Your task to perform on an android device: uninstall "NewsBreak: Local News & Alerts" Image 0: 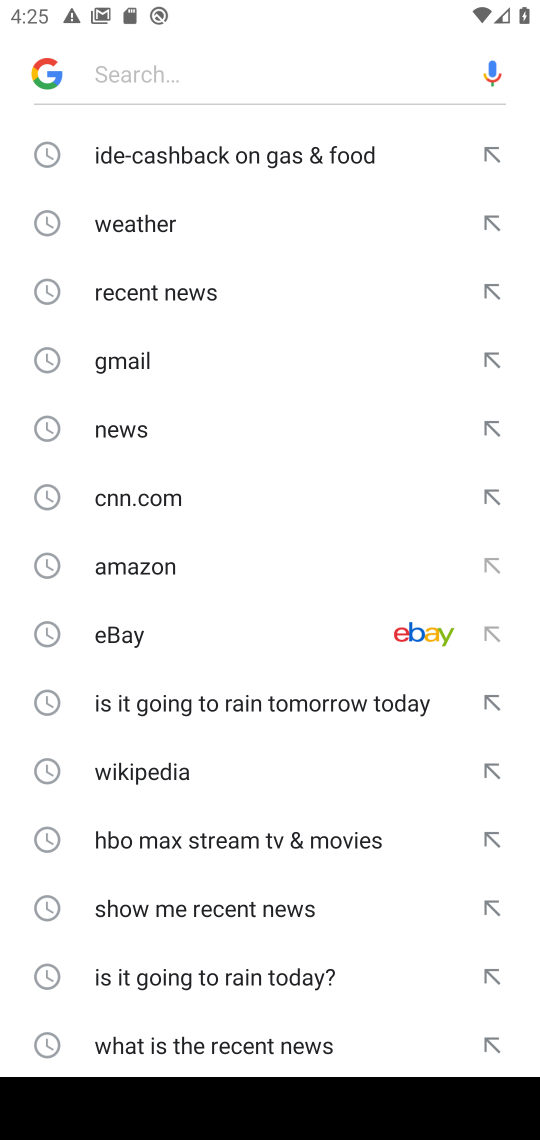
Step 0: press home button
Your task to perform on an android device: uninstall "NewsBreak: Local News & Alerts" Image 1: 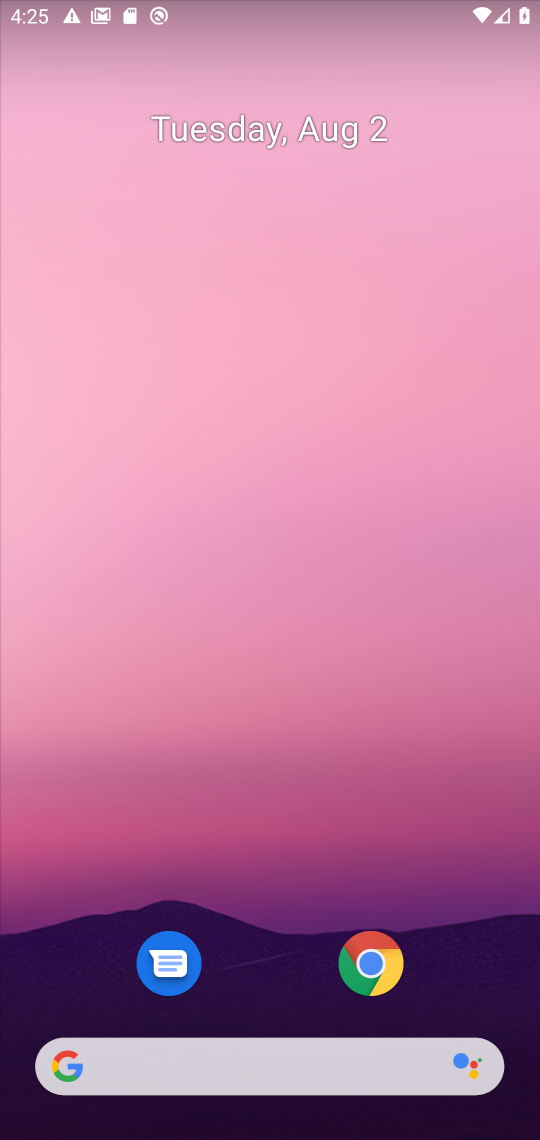
Step 1: drag from (284, 984) to (299, 252)
Your task to perform on an android device: uninstall "NewsBreak: Local News & Alerts" Image 2: 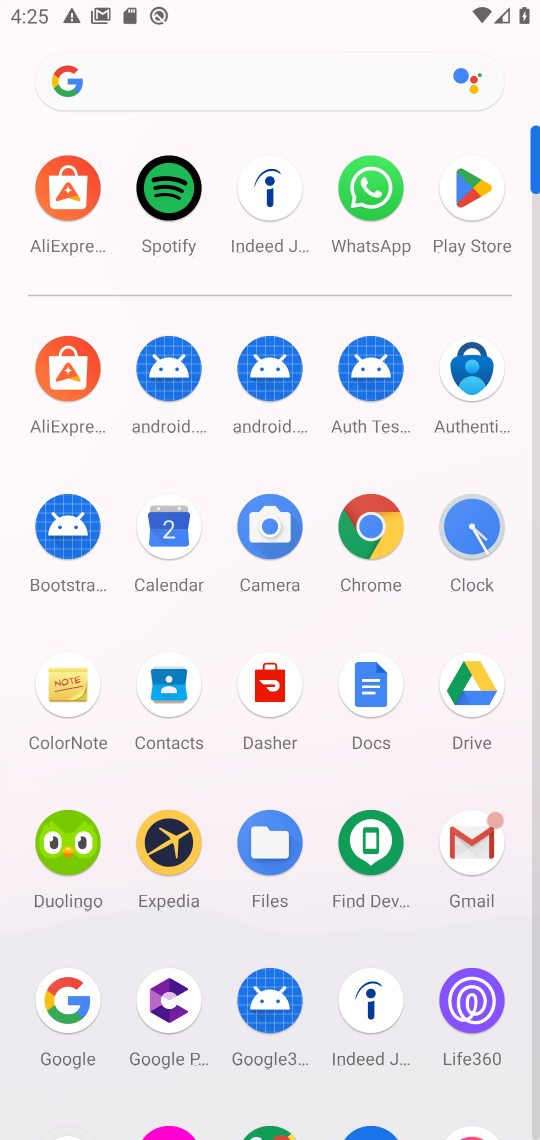
Step 2: click (466, 193)
Your task to perform on an android device: uninstall "NewsBreak: Local News & Alerts" Image 3: 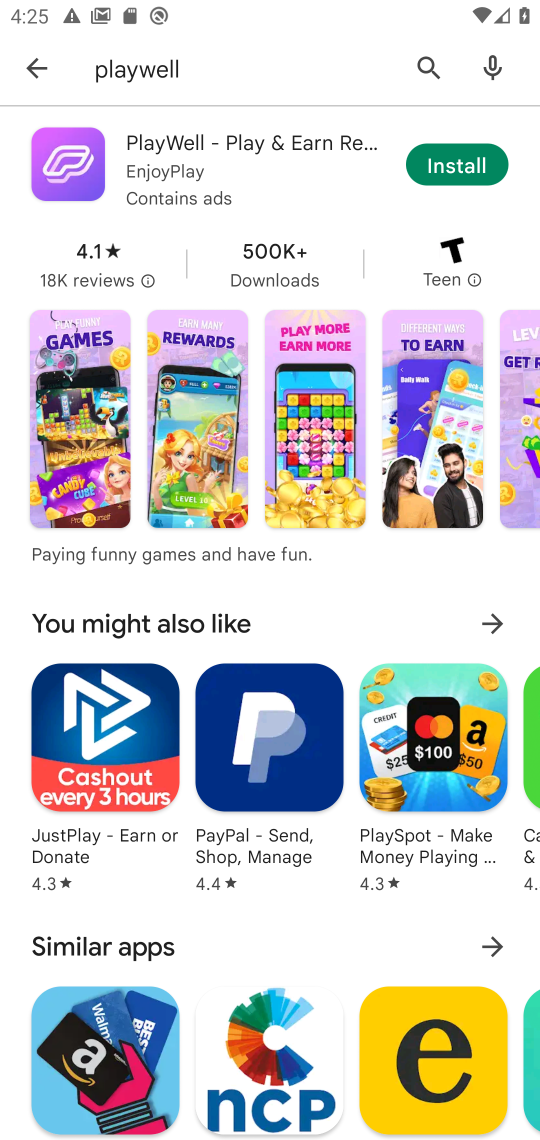
Step 3: click (430, 70)
Your task to perform on an android device: uninstall "NewsBreak: Local News & Alerts" Image 4: 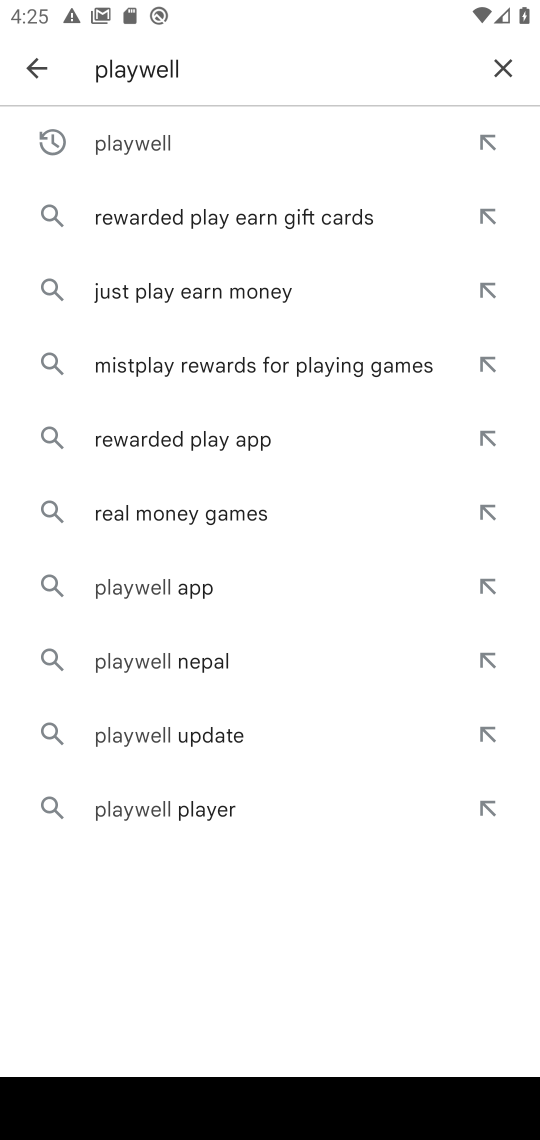
Step 4: click (512, 75)
Your task to perform on an android device: uninstall "NewsBreak: Local News & Alerts" Image 5: 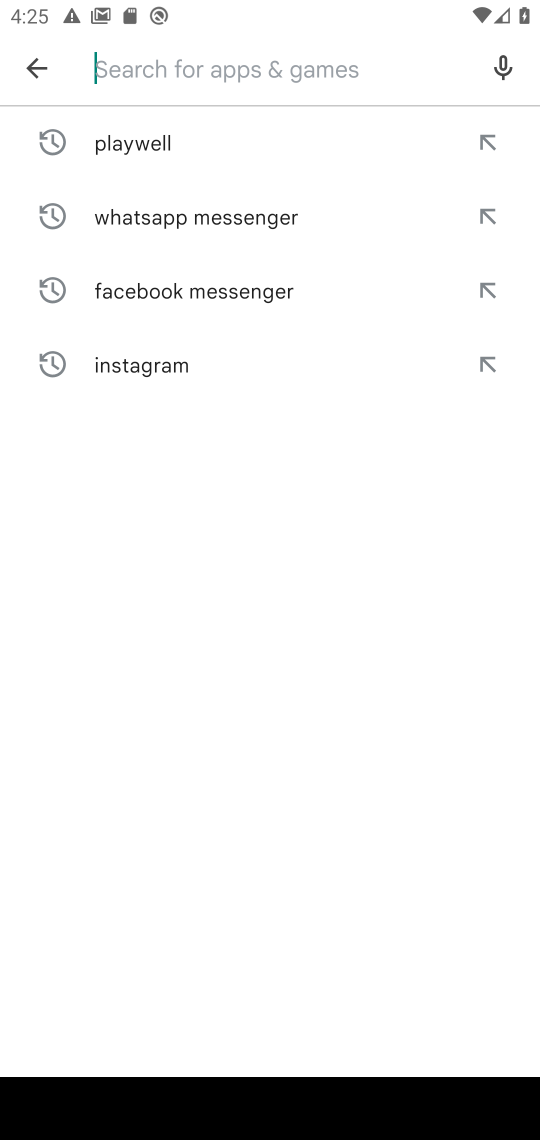
Step 5: type "NewsBreak: Local News & Alerts"
Your task to perform on an android device: uninstall "NewsBreak: Local News & Alerts" Image 6: 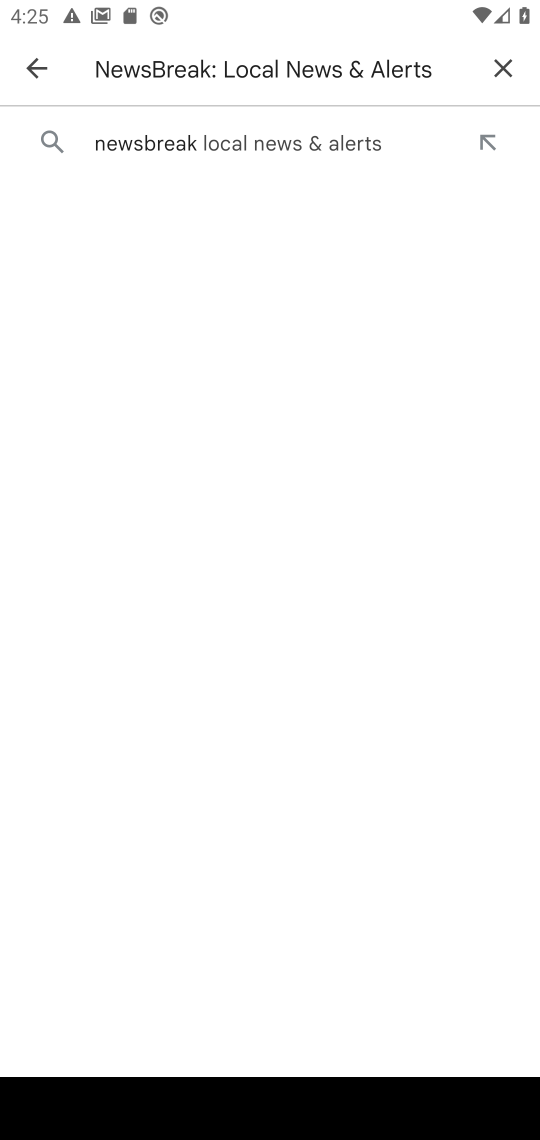
Step 6: click (189, 138)
Your task to perform on an android device: uninstall "NewsBreak: Local News & Alerts" Image 7: 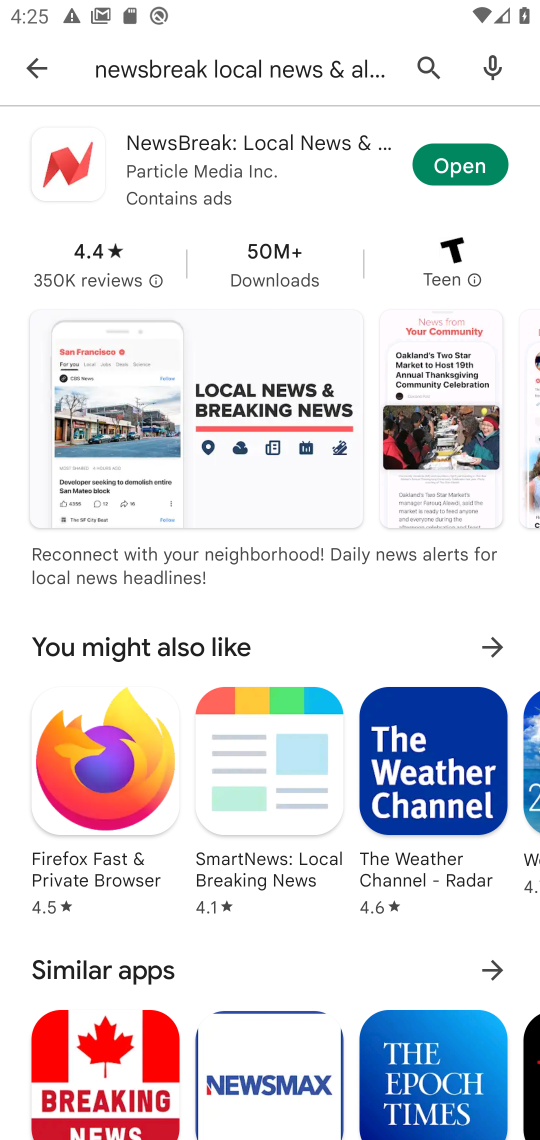
Step 7: click (240, 152)
Your task to perform on an android device: uninstall "NewsBreak: Local News & Alerts" Image 8: 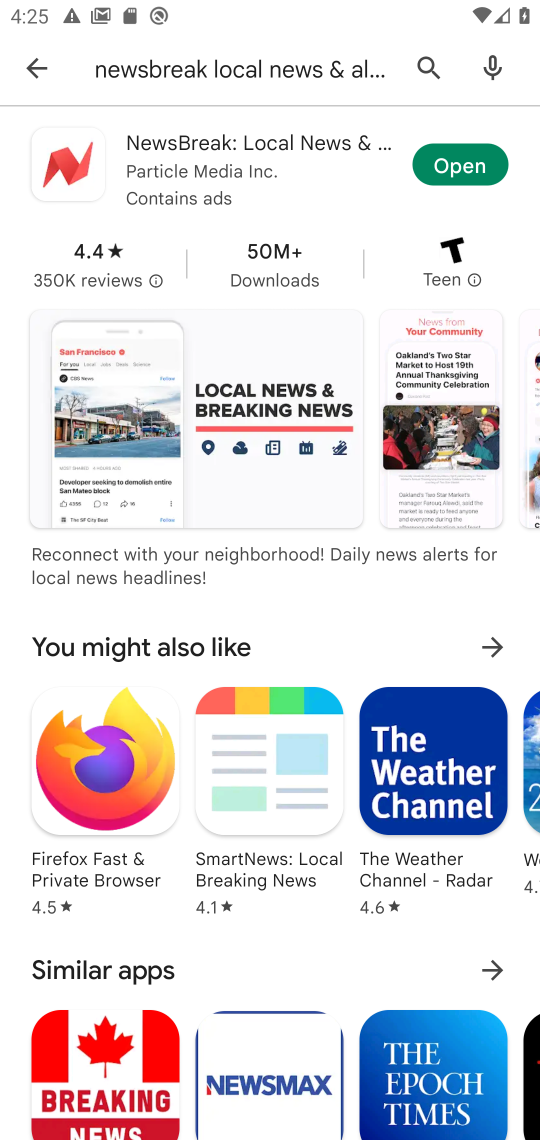
Step 8: click (240, 152)
Your task to perform on an android device: uninstall "NewsBreak: Local News & Alerts" Image 9: 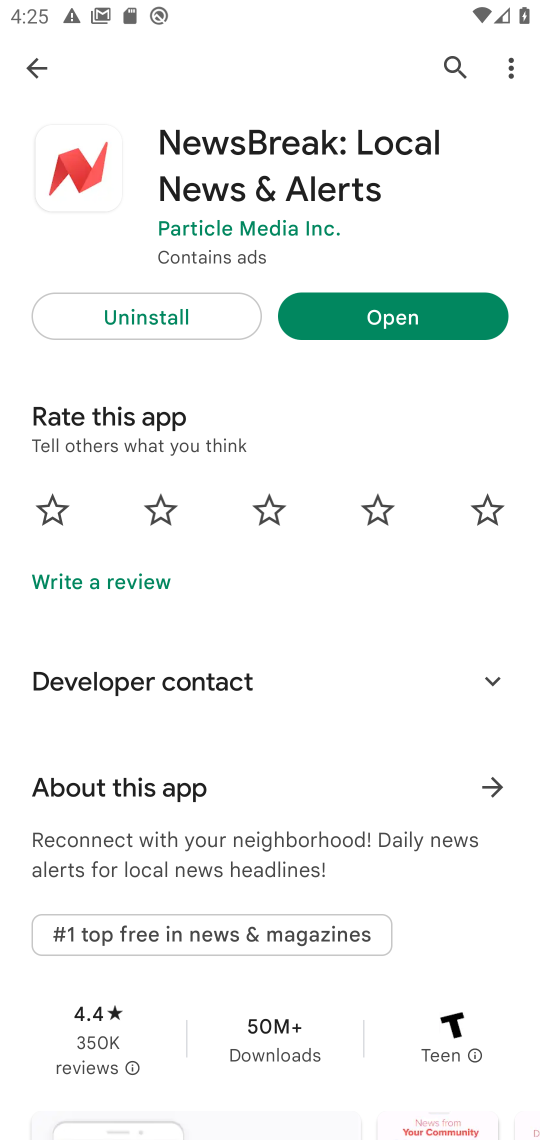
Step 9: click (160, 314)
Your task to perform on an android device: uninstall "NewsBreak: Local News & Alerts" Image 10: 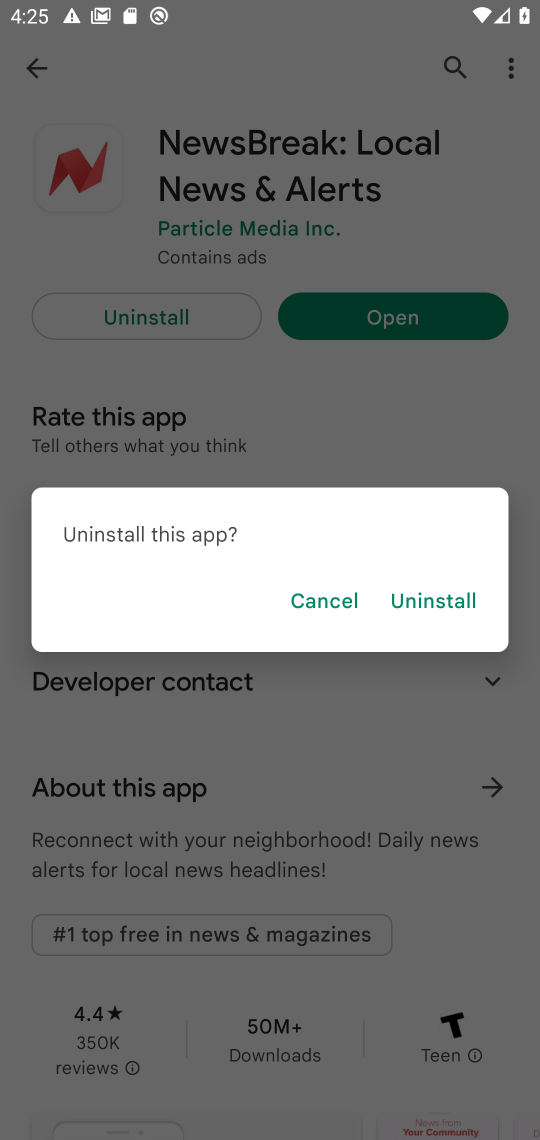
Step 10: click (428, 605)
Your task to perform on an android device: uninstall "NewsBreak: Local News & Alerts" Image 11: 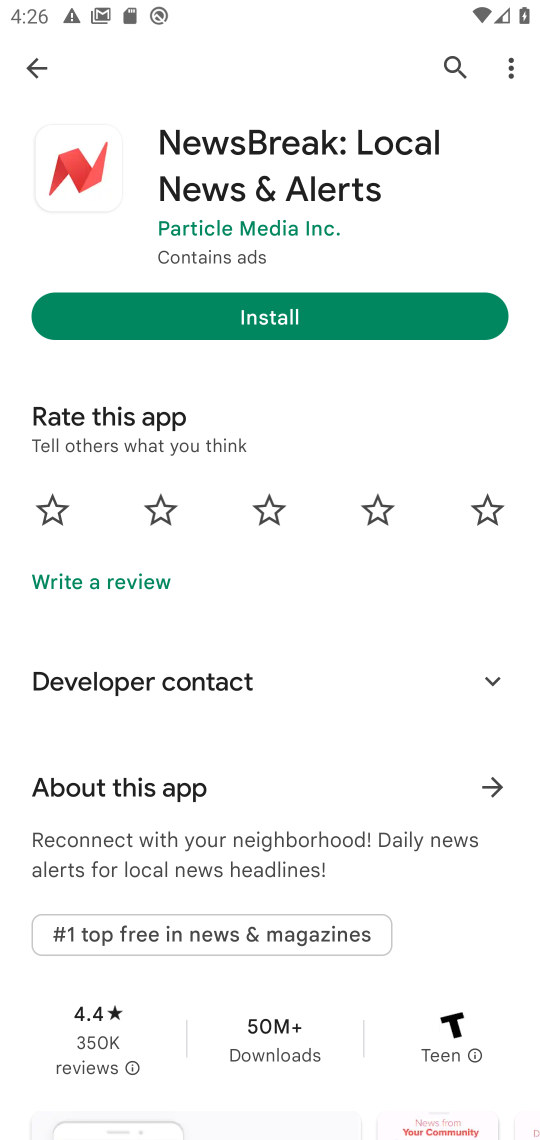
Step 11: task complete